Your task to perform on an android device: change keyboard looks Image 0: 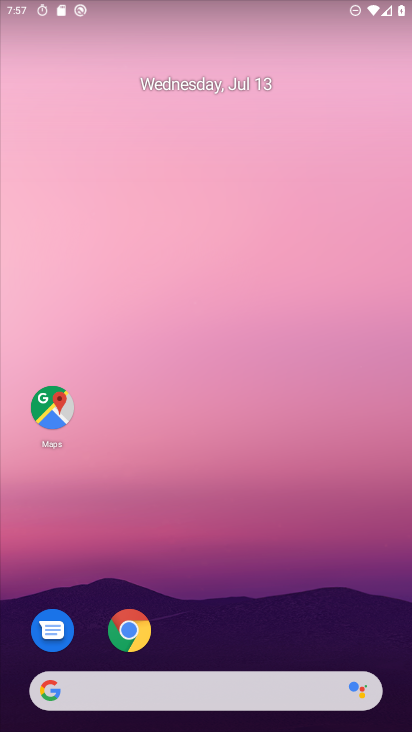
Step 0: drag from (409, 653) to (267, 49)
Your task to perform on an android device: change keyboard looks Image 1: 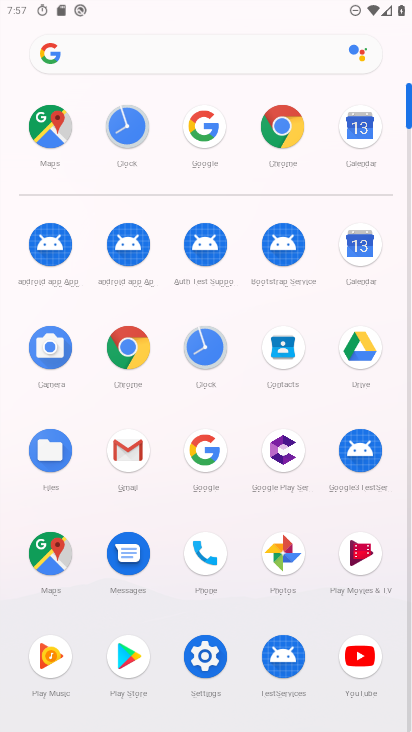
Step 1: click (216, 659)
Your task to perform on an android device: change keyboard looks Image 2: 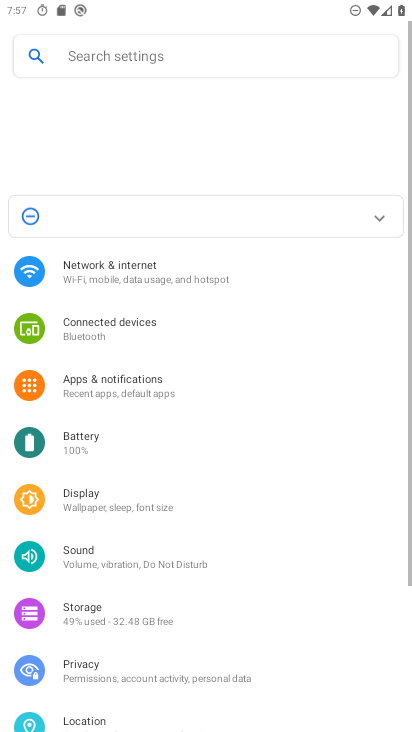
Step 2: drag from (207, 599) to (196, 46)
Your task to perform on an android device: change keyboard looks Image 3: 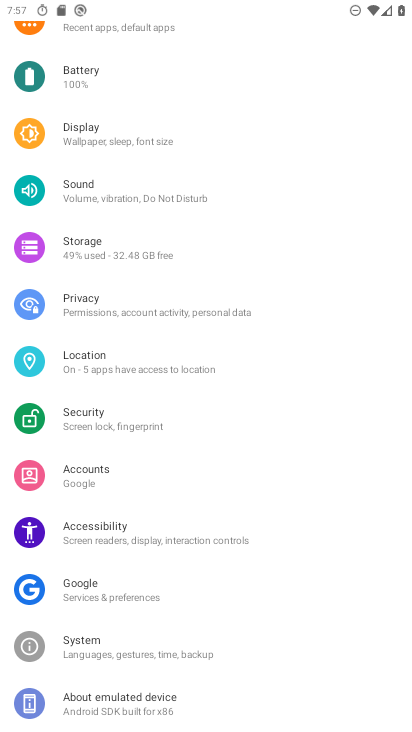
Step 3: click (116, 649)
Your task to perform on an android device: change keyboard looks Image 4: 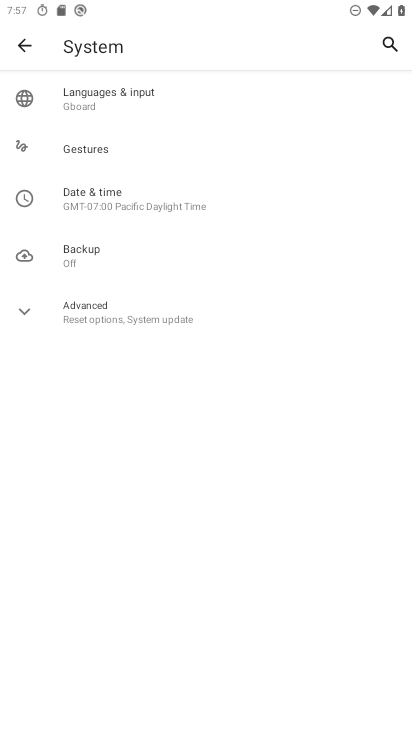
Step 4: click (108, 112)
Your task to perform on an android device: change keyboard looks Image 5: 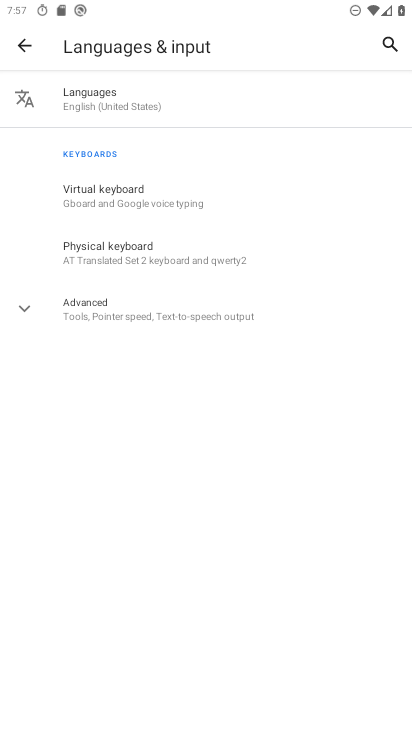
Step 5: click (96, 207)
Your task to perform on an android device: change keyboard looks Image 6: 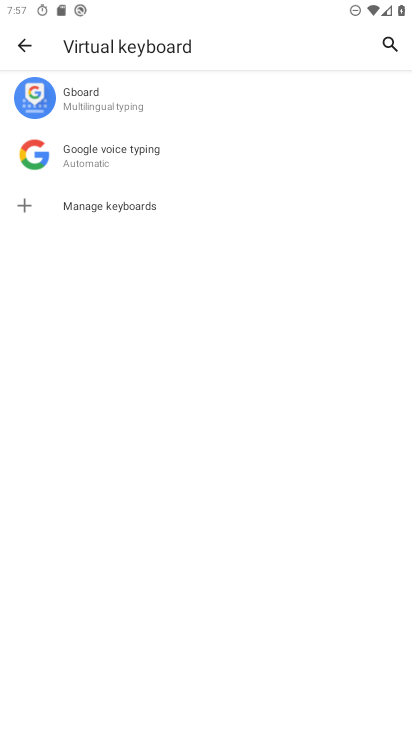
Step 6: click (96, 94)
Your task to perform on an android device: change keyboard looks Image 7: 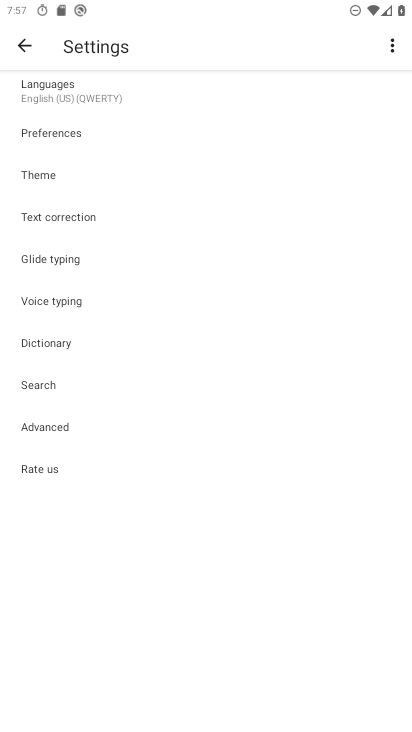
Step 7: click (35, 185)
Your task to perform on an android device: change keyboard looks Image 8: 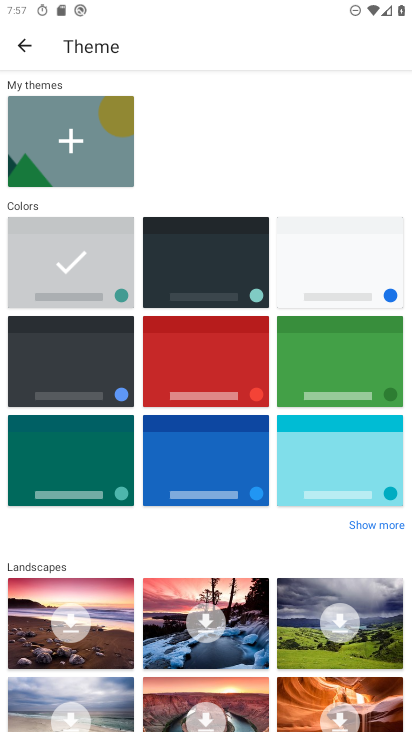
Step 8: click (216, 249)
Your task to perform on an android device: change keyboard looks Image 9: 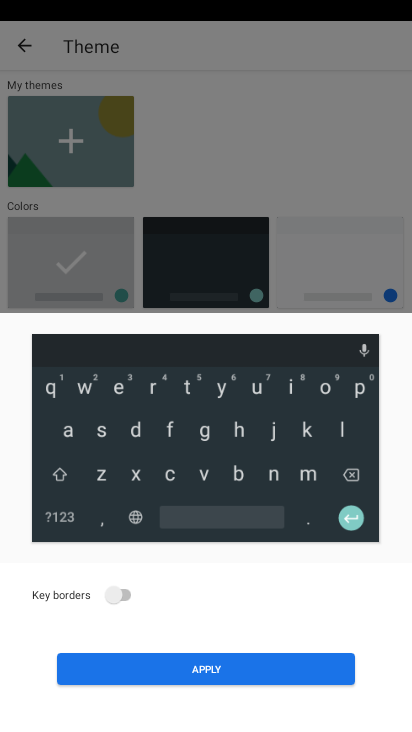
Step 9: click (167, 676)
Your task to perform on an android device: change keyboard looks Image 10: 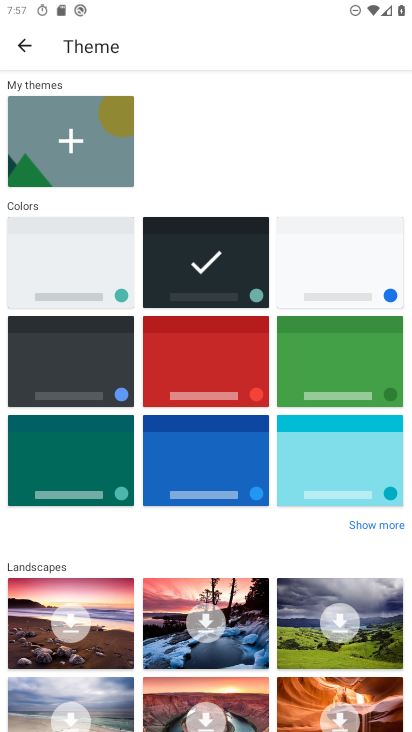
Step 10: task complete